Your task to perform on an android device: add a contact Image 0: 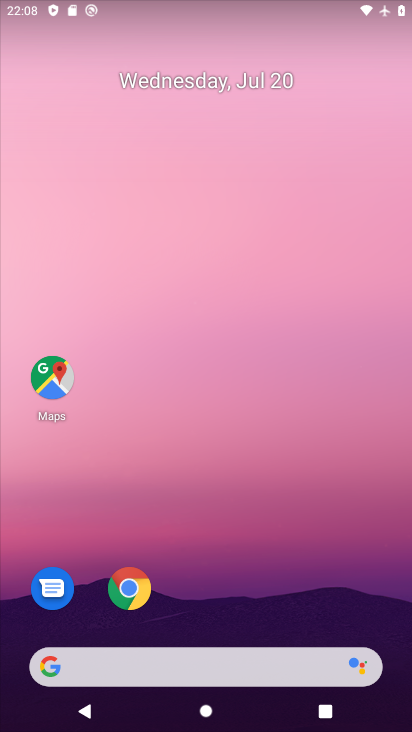
Step 0: drag from (379, 606) to (324, 119)
Your task to perform on an android device: add a contact Image 1: 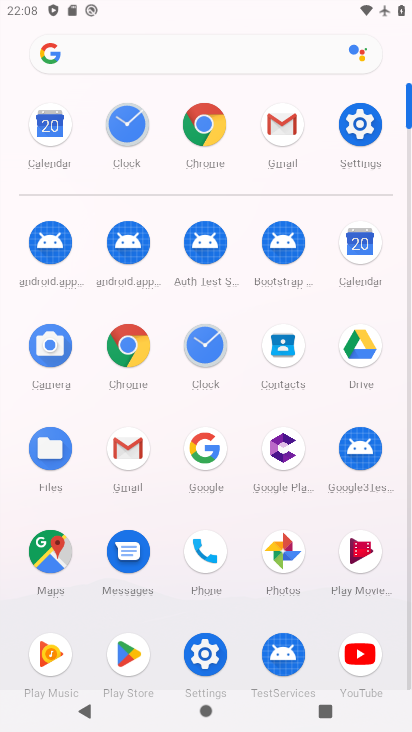
Step 1: click (281, 345)
Your task to perform on an android device: add a contact Image 2: 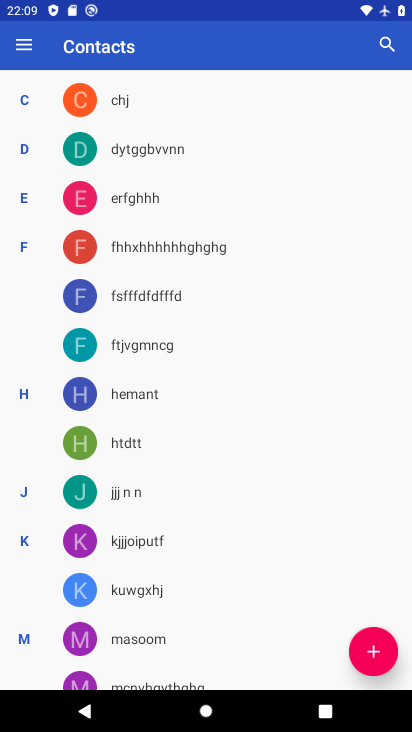
Step 2: click (372, 658)
Your task to perform on an android device: add a contact Image 3: 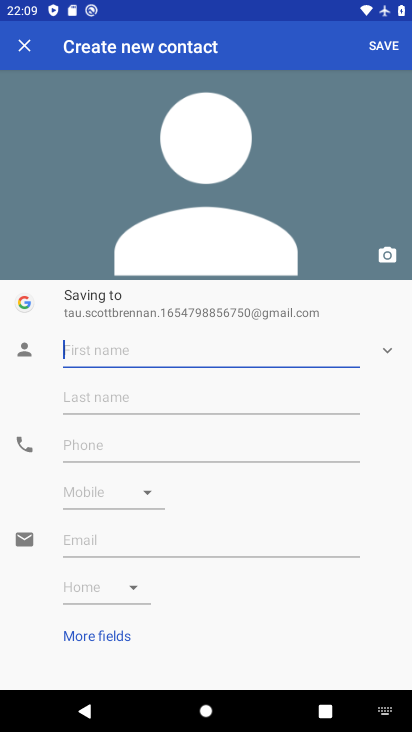
Step 3: type "mnbvcxc"
Your task to perform on an android device: add a contact Image 4: 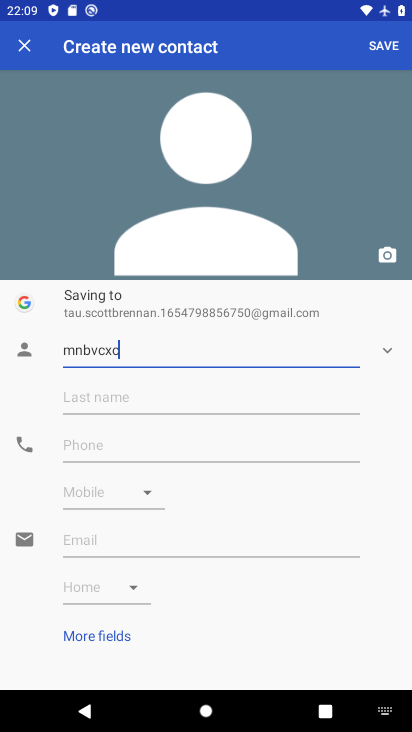
Step 4: click (135, 445)
Your task to perform on an android device: add a contact Image 5: 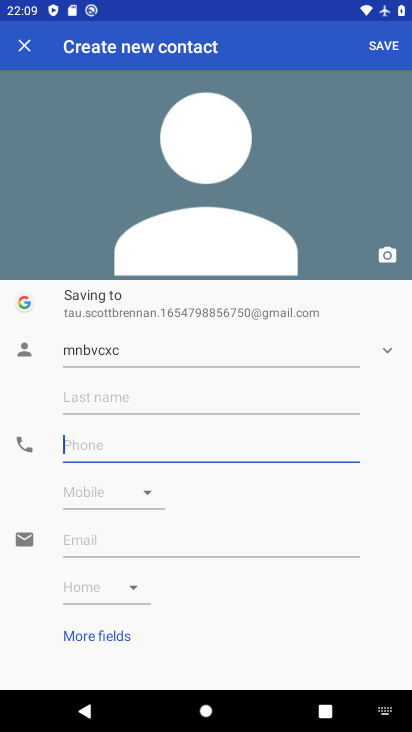
Step 5: type "098765365645"
Your task to perform on an android device: add a contact Image 6: 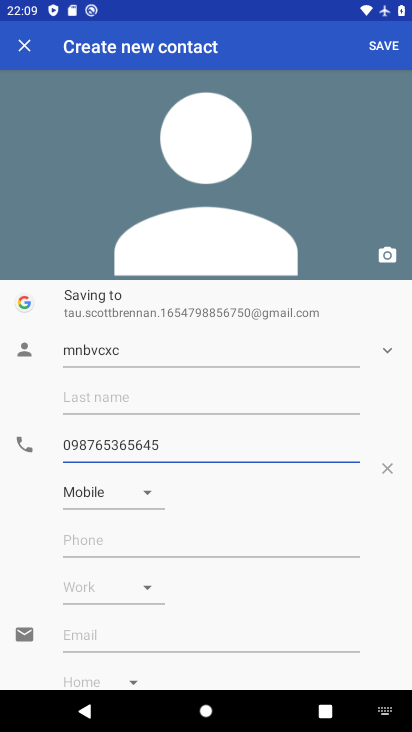
Step 6: click (379, 48)
Your task to perform on an android device: add a contact Image 7: 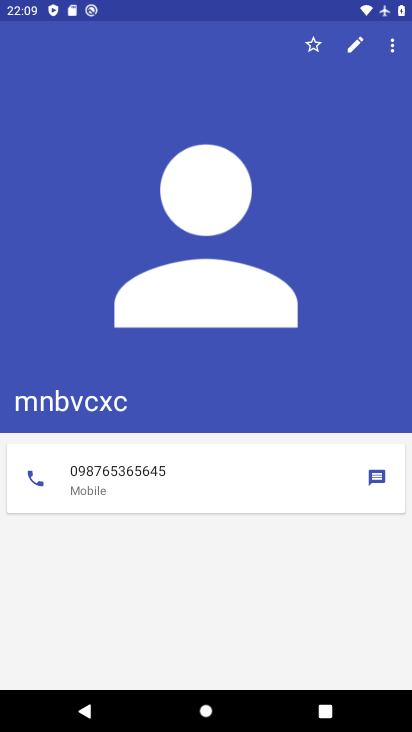
Step 7: task complete